Your task to perform on an android device: toggle translation in the chrome app Image 0: 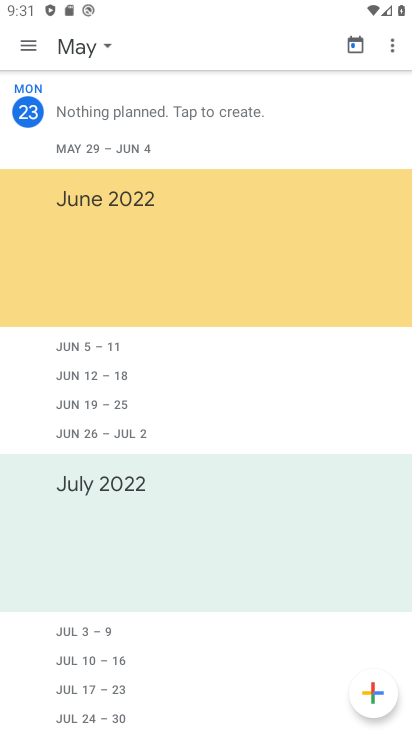
Step 0: press home button
Your task to perform on an android device: toggle translation in the chrome app Image 1: 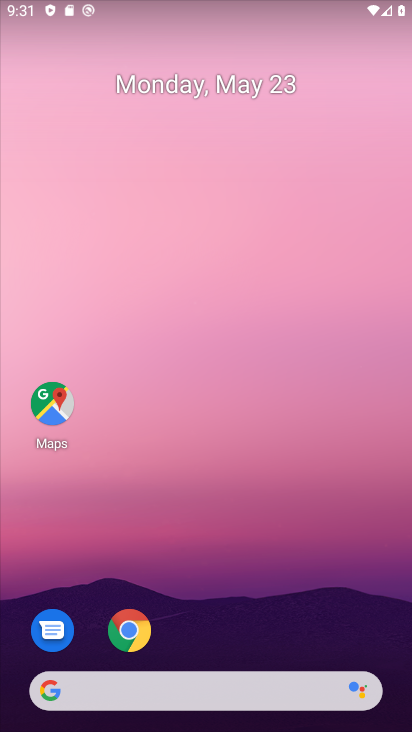
Step 1: click (137, 616)
Your task to perform on an android device: toggle translation in the chrome app Image 2: 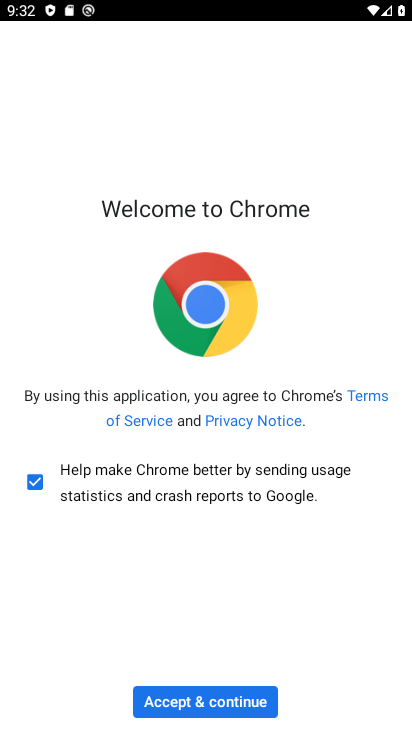
Step 2: click (195, 708)
Your task to perform on an android device: toggle translation in the chrome app Image 3: 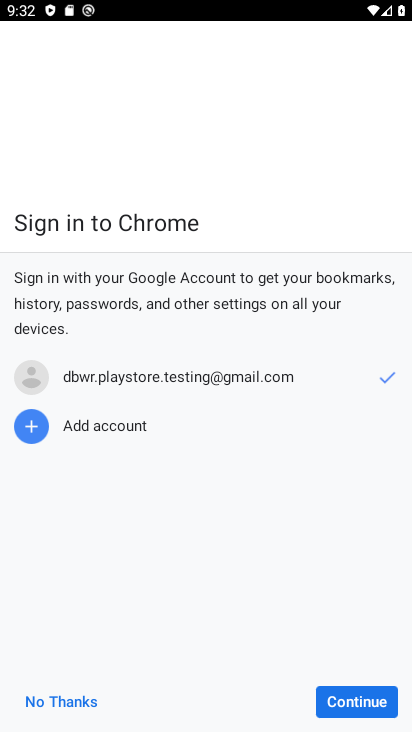
Step 3: click (329, 706)
Your task to perform on an android device: toggle translation in the chrome app Image 4: 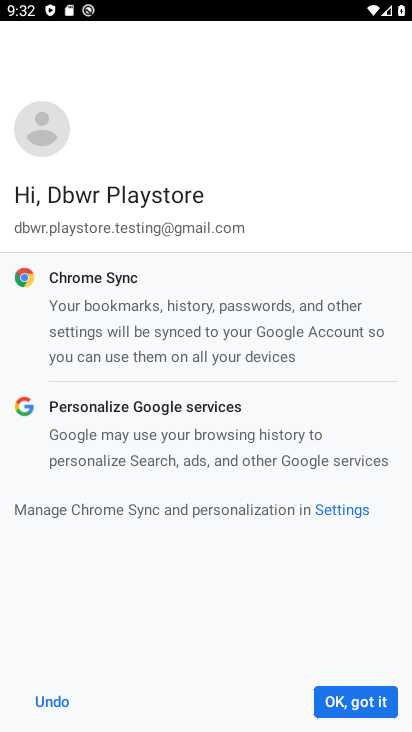
Step 4: click (362, 712)
Your task to perform on an android device: toggle translation in the chrome app Image 5: 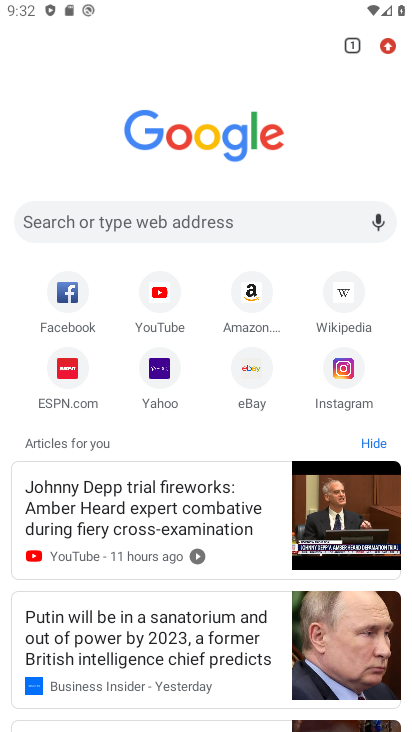
Step 5: click (382, 51)
Your task to perform on an android device: toggle translation in the chrome app Image 6: 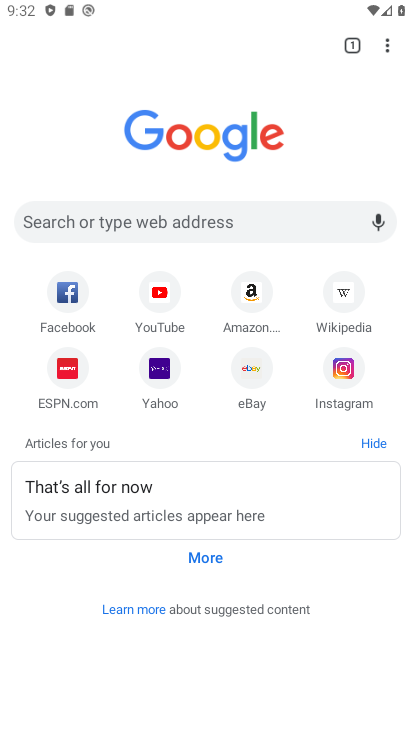
Step 6: click (392, 38)
Your task to perform on an android device: toggle translation in the chrome app Image 7: 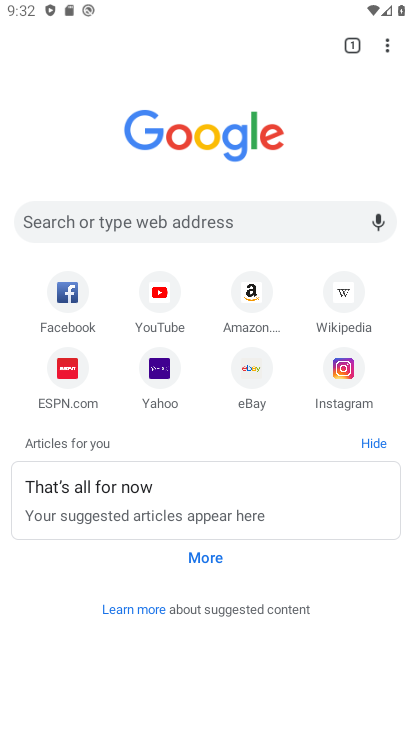
Step 7: drag from (378, 57) to (244, 419)
Your task to perform on an android device: toggle translation in the chrome app Image 8: 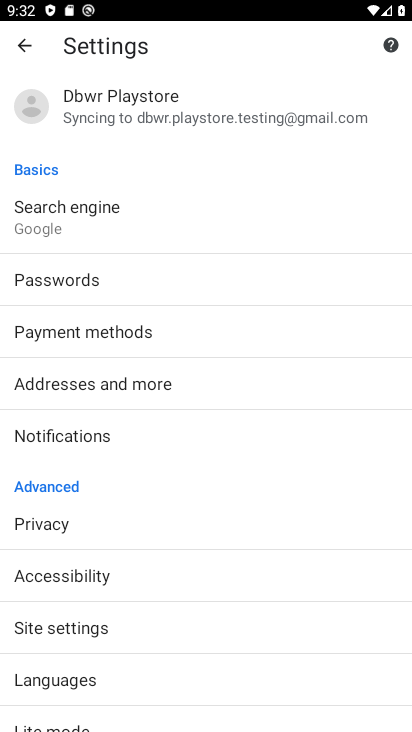
Step 8: click (102, 677)
Your task to perform on an android device: toggle translation in the chrome app Image 9: 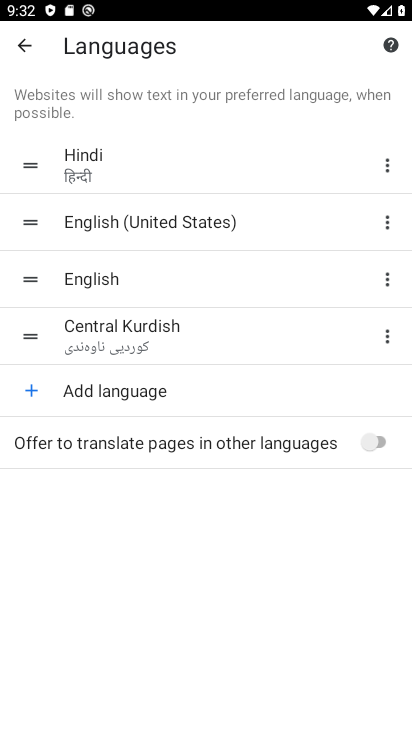
Step 9: click (370, 444)
Your task to perform on an android device: toggle translation in the chrome app Image 10: 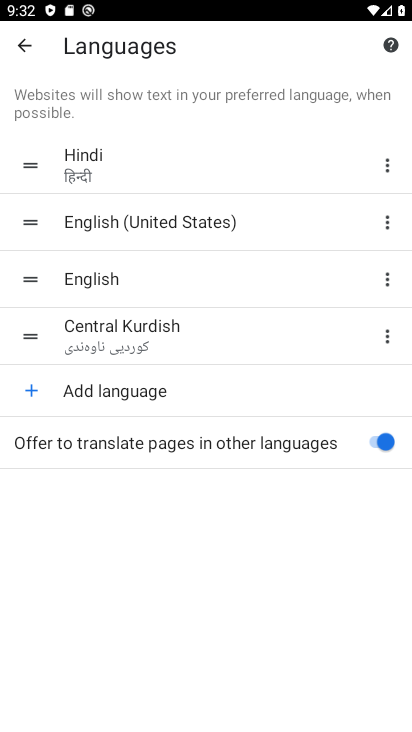
Step 10: task complete